Your task to perform on an android device: Go to Reddit.com Image 0: 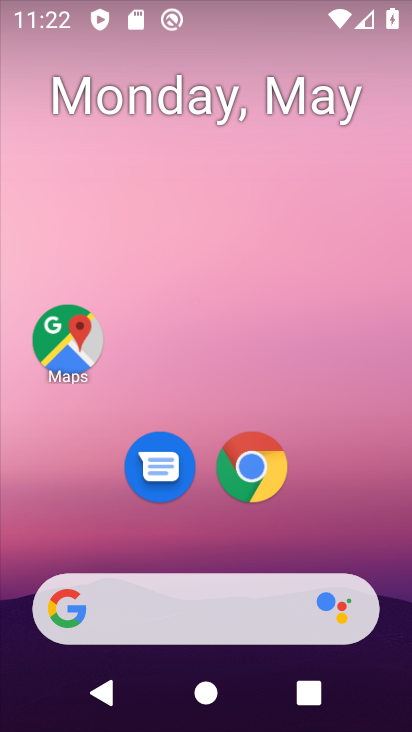
Step 0: click (259, 493)
Your task to perform on an android device: Go to Reddit.com Image 1: 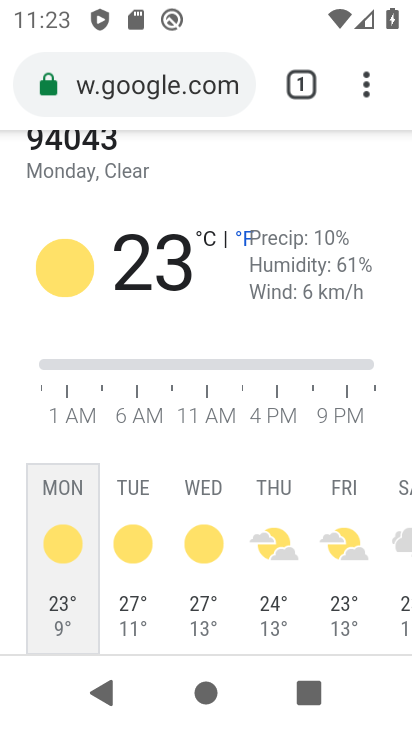
Step 1: click (140, 93)
Your task to perform on an android device: Go to Reddit.com Image 2: 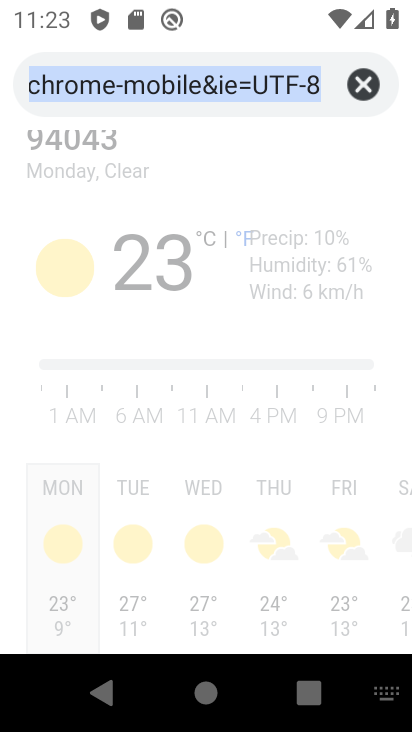
Step 2: type "reddit.com"
Your task to perform on an android device: Go to Reddit.com Image 3: 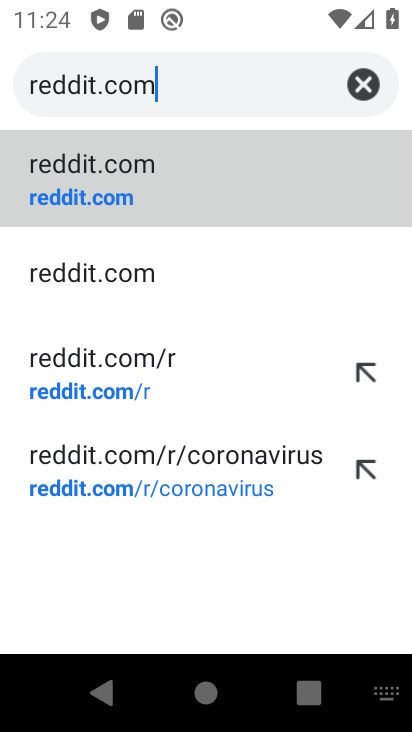
Step 3: click (79, 198)
Your task to perform on an android device: Go to Reddit.com Image 4: 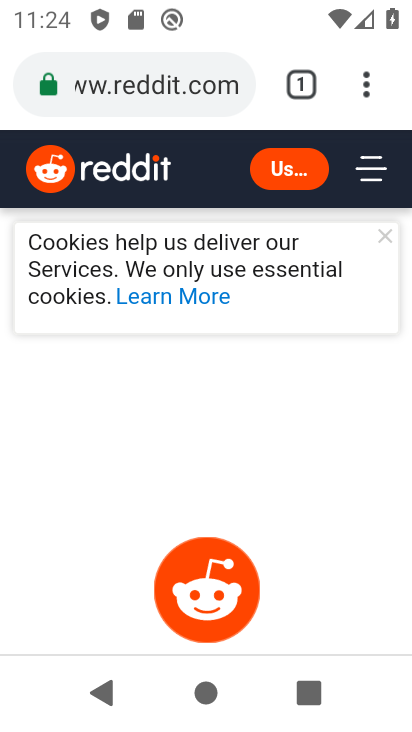
Step 4: task complete